Your task to perform on an android device: turn on translation in the chrome app Image 0: 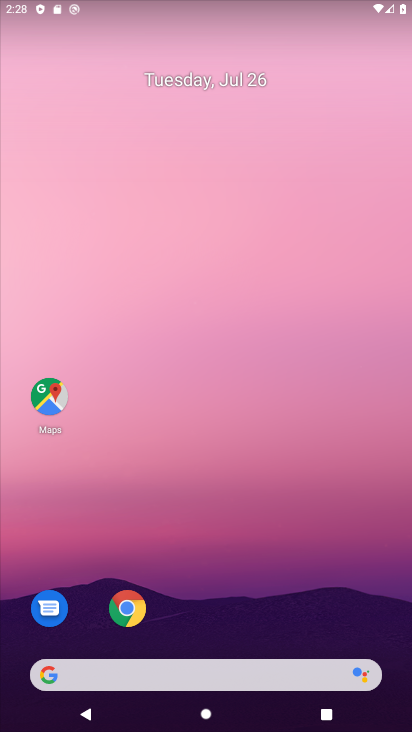
Step 0: click (137, 614)
Your task to perform on an android device: turn on translation in the chrome app Image 1: 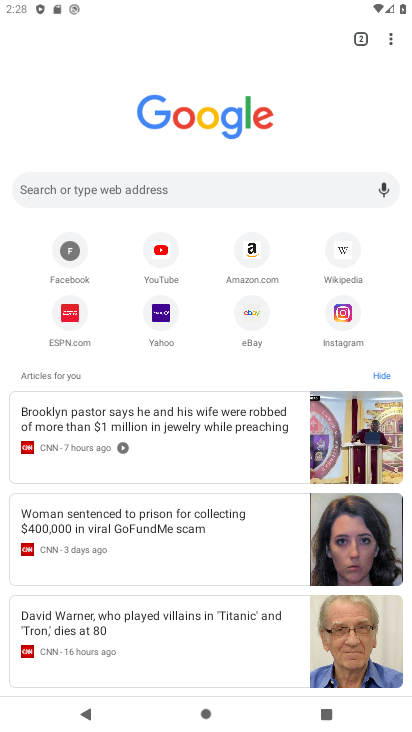
Step 1: click (389, 38)
Your task to perform on an android device: turn on translation in the chrome app Image 2: 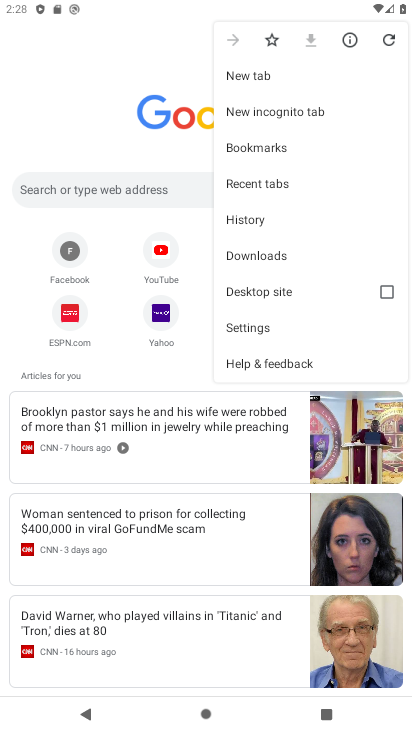
Step 2: click (267, 325)
Your task to perform on an android device: turn on translation in the chrome app Image 3: 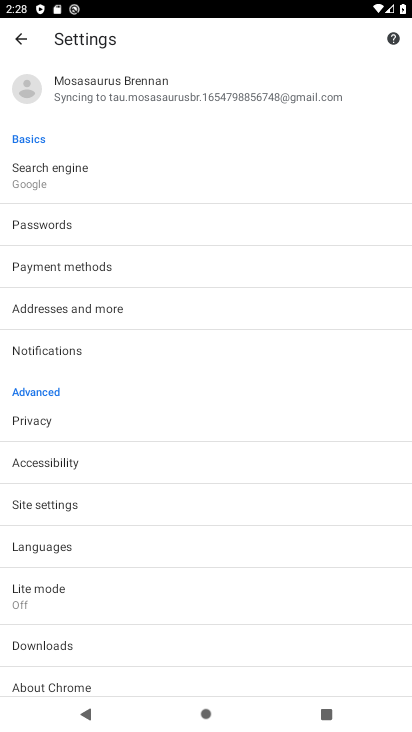
Step 3: task complete